Your task to perform on an android device: turn on showing notifications on the lock screen Image 0: 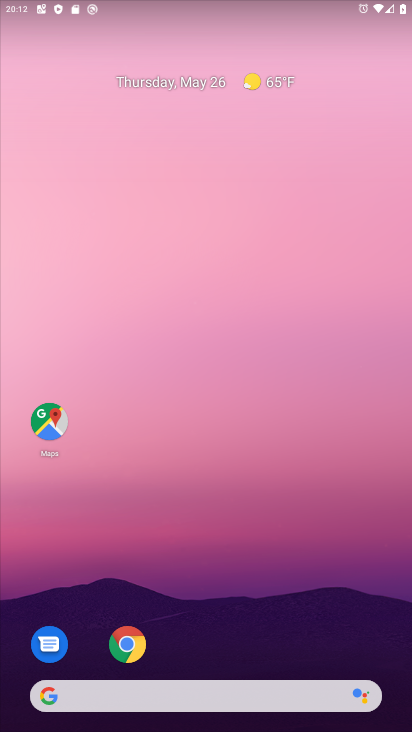
Step 0: drag from (206, 356) to (221, 113)
Your task to perform on an android device: turn on showing notifications on the lock screen Image 1: 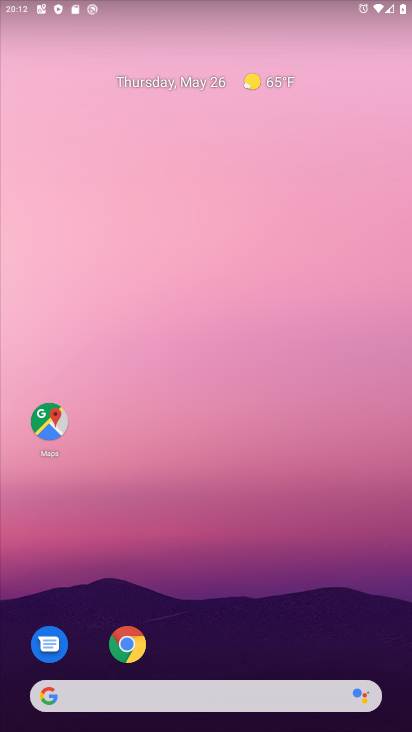
Step 1: drag from (179, 656) to (205, 314)
Your task to perform on an android device: turn on showing notifications on the lock screen Image 2: 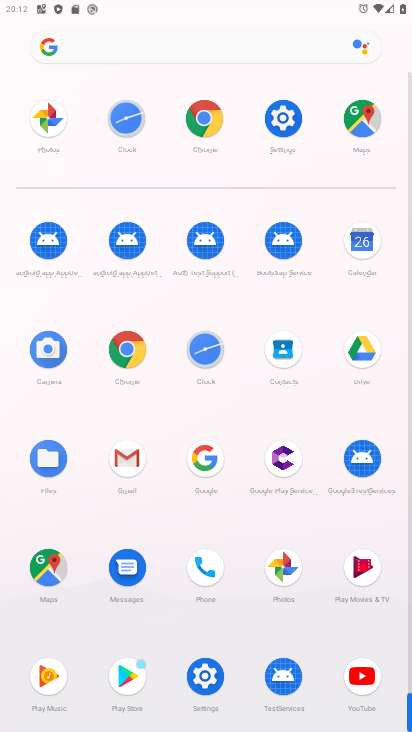
Step 2: click (216, 673)
Your task to perform on an android device: turn on showing notifications on the lock screen Image 3: 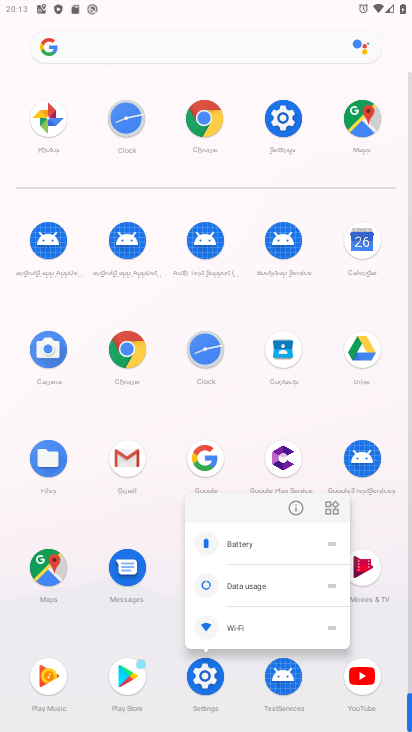
Step 3: click (300, 500)
Your task to perform on an android device: turn on showing notifications on the lock screen Image 4: 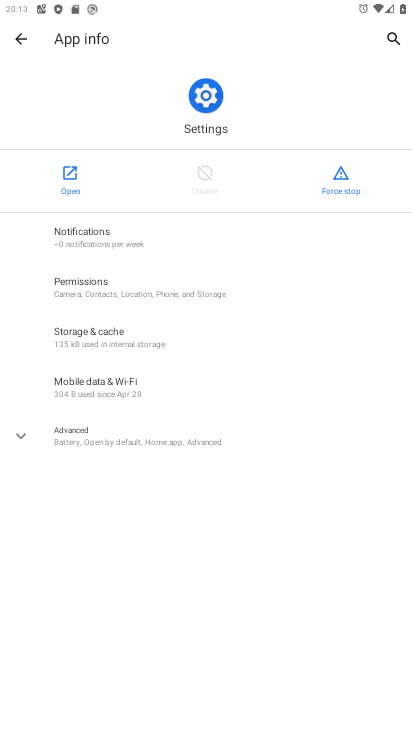
Step 4: click (52, 167)
Your task to perform on an android device: turn on showing notifications on the lock screen Image 5: 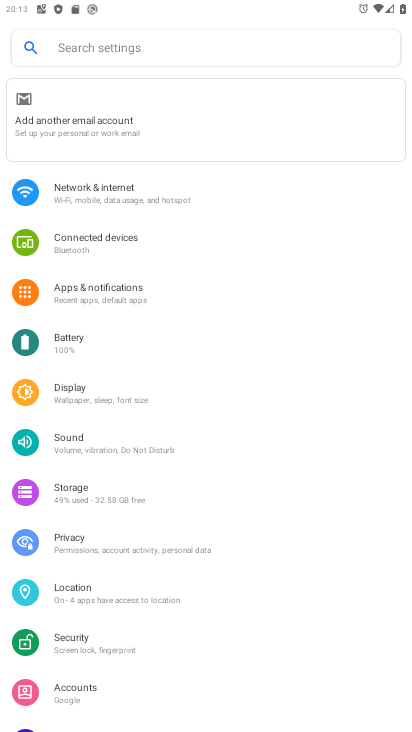
Step 5: click (105, 300)
Your task to perform on an android device: turn on showing notifications on the lock screen Image 6: 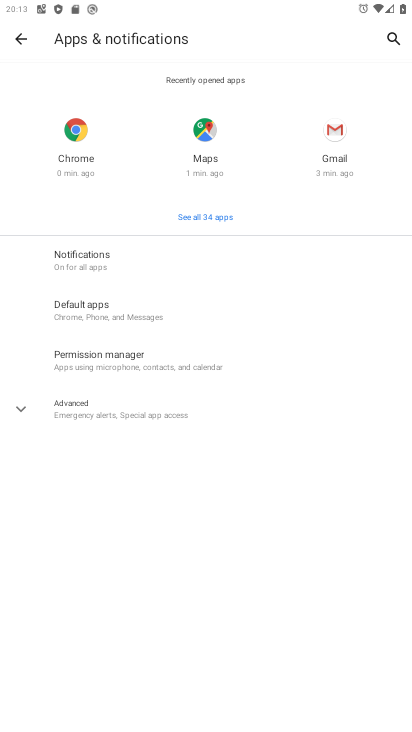
Step 6: click (180, 278)
Your task to perform on an android device: turn on showing notifications on the lock screen Image 7: 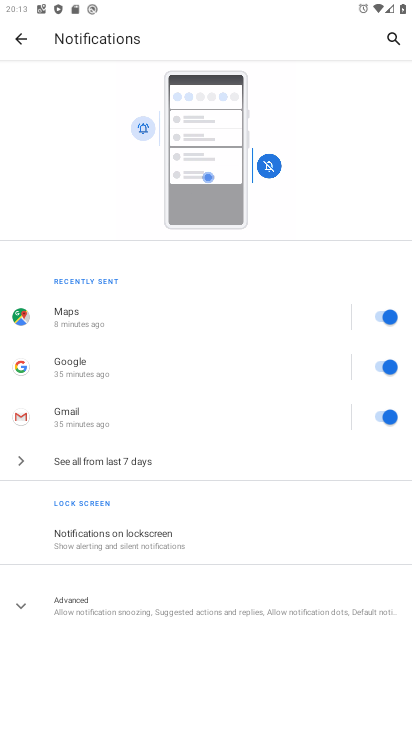
Step 7: click (134, 519)
Your task to perform on an android device: turn on showing notifications on the lock screen Image 8: 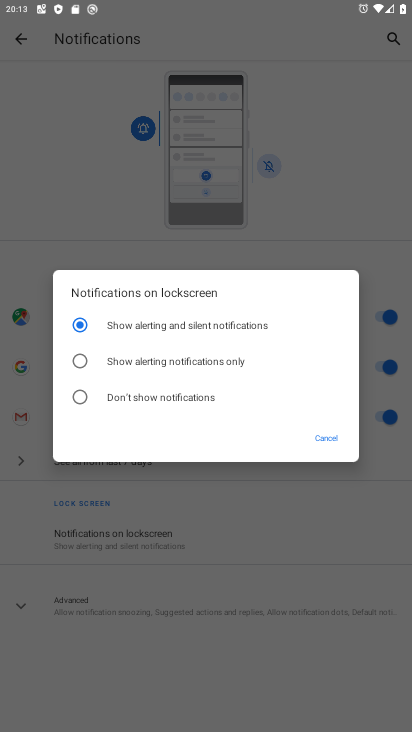
Step 8: click (104, 363)
Your task to perform on an android device: turn on showing notifications on the lock screen Image 9: 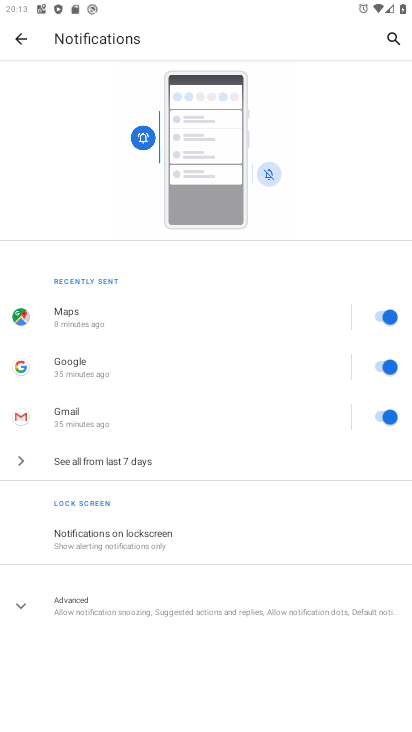
Step 9: task complete